Your task to perform on an android device: see tabs open on other devices in the chrome app Image 0: 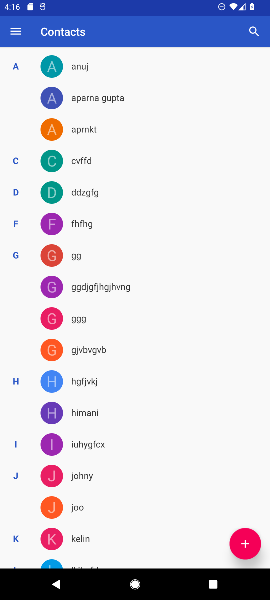
Step 0: press home button
Your task to perform on an android device: see tabs open on other devices in the chrome app Image 1: 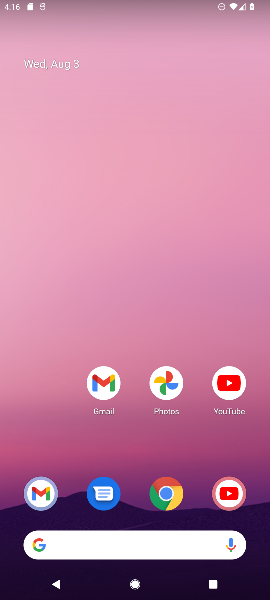
Step 1: drag from (50, 452) to (54, 182)
Your task to perform on an android device: see tabs open on other devices in the chrome app Image 2: 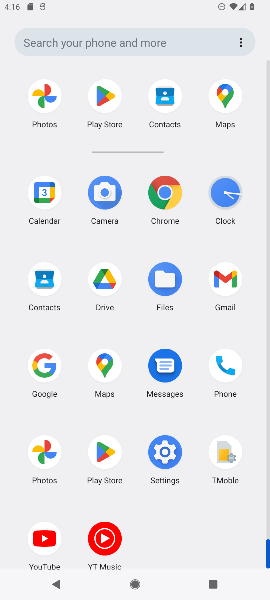
Step 2: click (171, 189)
Your task to perform on an android device: see tabs open on other devices in the chrome app Image 3: 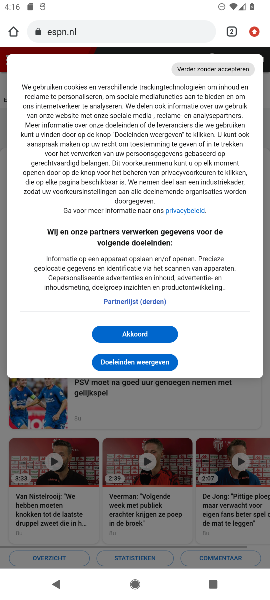
Step 3: click (259, 34)
Your task to perform on an android device: see tabs open on other devices in the chrome app Image 4: 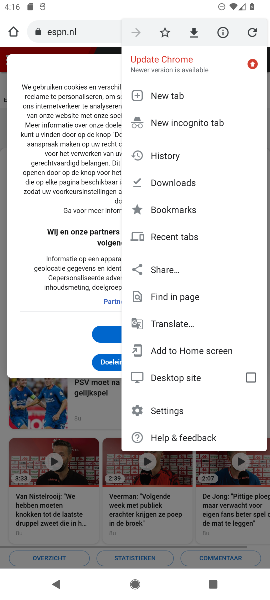
Step 4: click (195, 235)
Your task to perform on an android device: see tabs open on other devices in the chrome app Image 5: 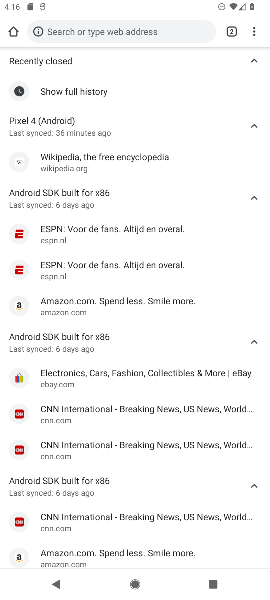
Step 5: click (236, 32)
Your task to perform on an android device: see tabs open on other devices in the chrome app Image 6: 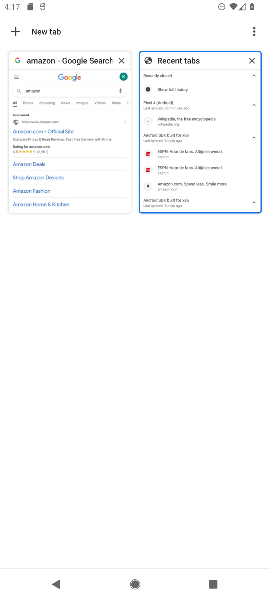
Step 6: task complete